Your task to perform on an android device: turn pop-ups off in chrome Image 0: 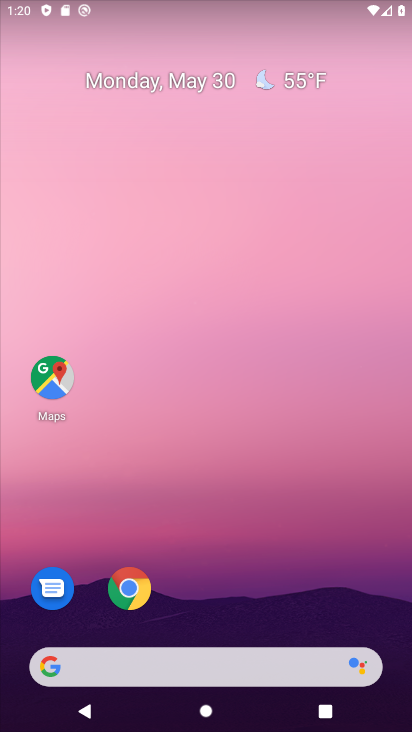
Step 0: click (131, 590)
Your task to perform on an android device: turn pop-ups off in chrome Image 1: 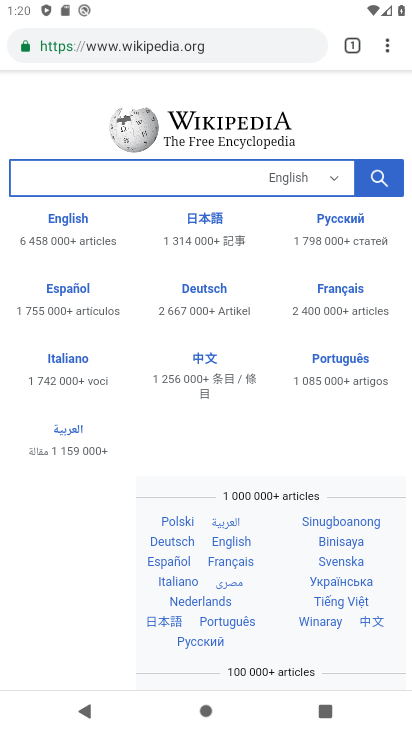
Step 1: click (383, 48)
Your task to perform on an android device: turn pop-ups off in chrome Image 2: 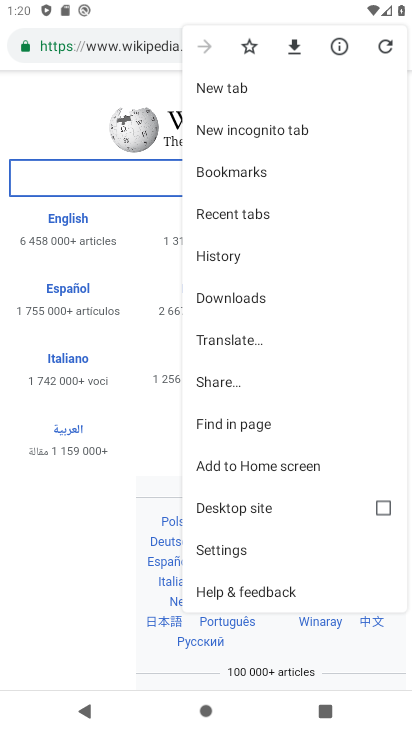
Step 2: click (224, 545)
Your task to perform on an android device: turn pop-ups off in chrome Image 3: 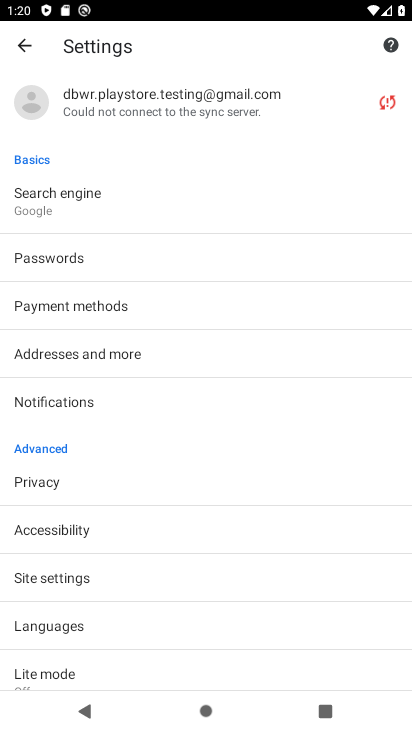
Step 3: drag from (174, 608) to (121, 367)
Your task to perform on an android device: turn pop-ups off in chrome Image 4: 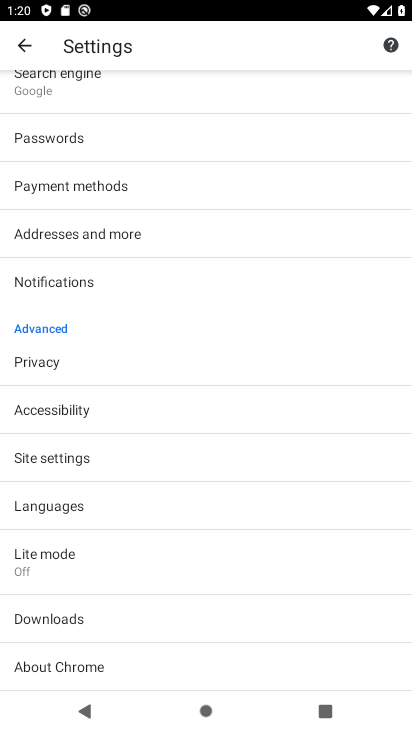
Step 4: click (47, 448)
Your task to perform on an android device: turn pop-ups off in chrome Image 5: 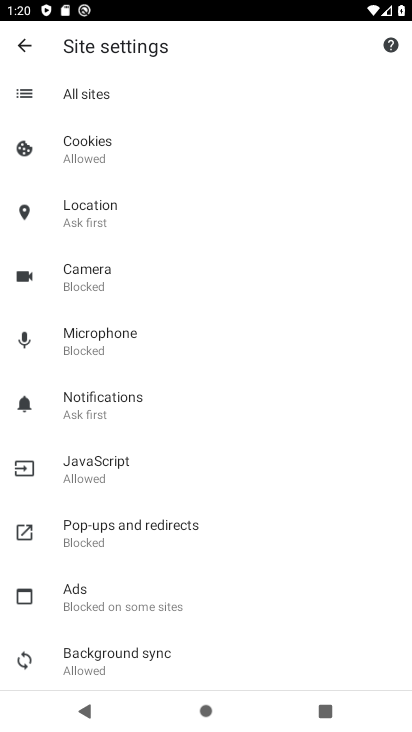
Step 5: click (106, 538)
Your task to perform on an android device: turn pop-ups off in chrome Image 6: 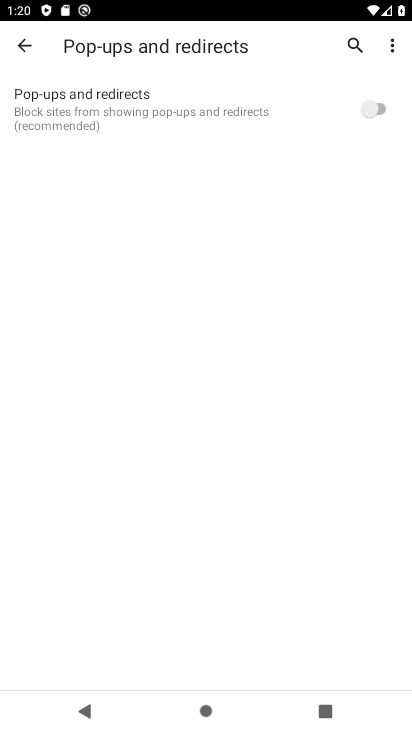
Step 6: task complete